Your task to perform on an android device: turn smart compose on in the gmail app Image 0: 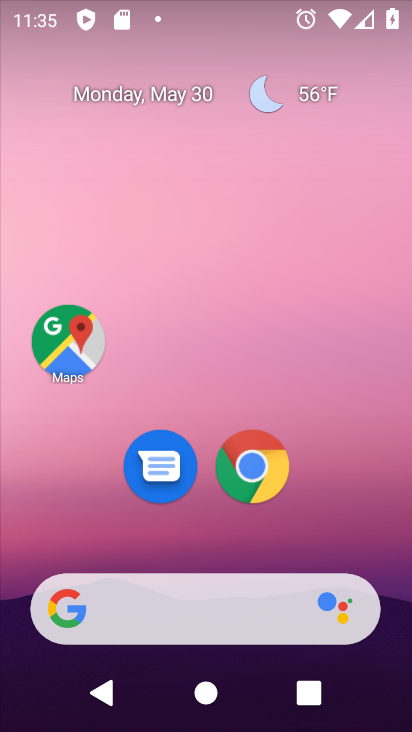
Step 0: drag from (157, 606) to (115, 144)
Your task to perform on an android device: turn smart compose on in the gmail app Image 1: 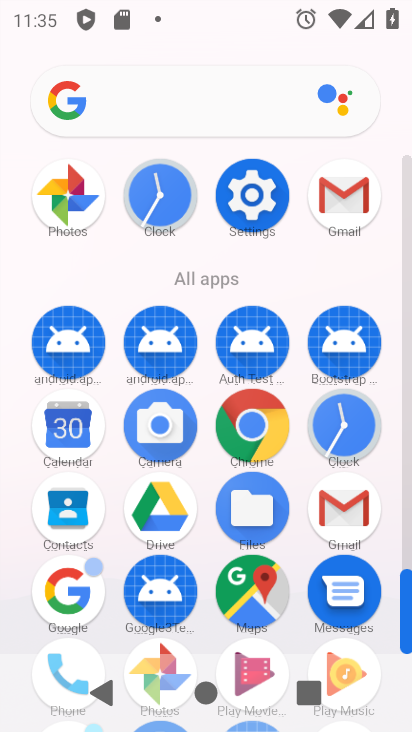
Step 1: click (358, 505)
Your task to perform on an android device: turn smart compose on in the gmail app Image 2: 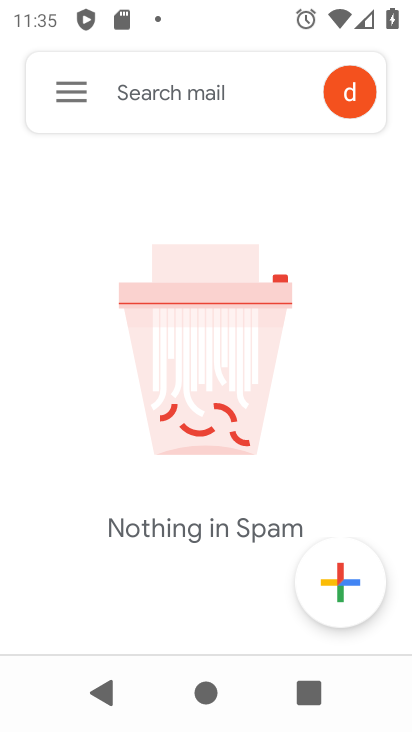
Step 2: click (71, 93)
Your task to perform on an android device: turn smart compose on in the gmail app Image 3: 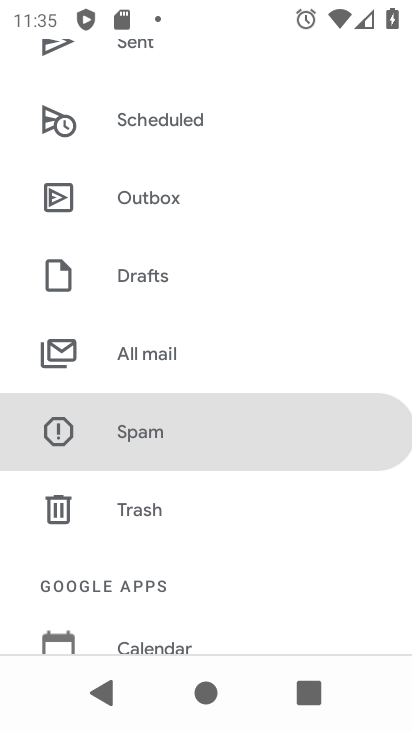
Step 3: drag from (212, 565) to (104, 26)
Your task to perform on an android device: turn smart compose on in the gmail app Image 4: 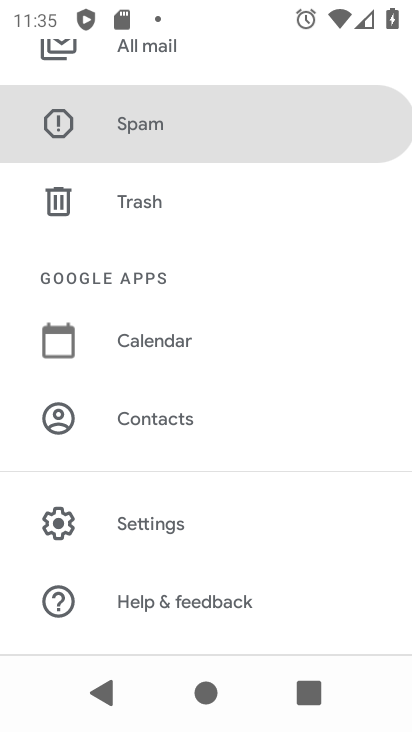
Step 4: click (142, 523)
Your task to perform on an android device: turn smart compose on in the gmail app Image 5: 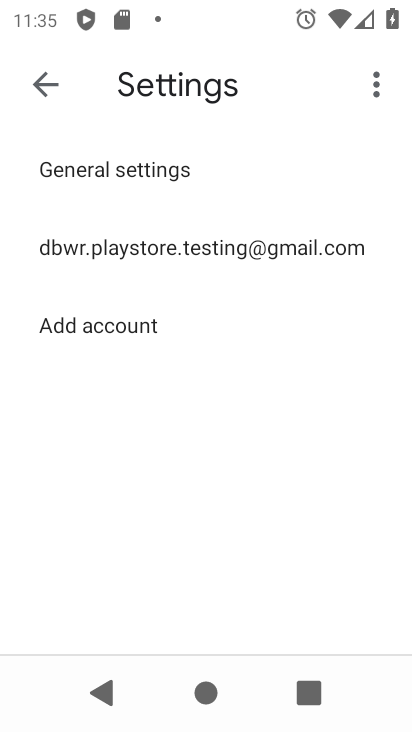
Step 5: click (190, 248)
Your task to perform on an android device: turn smart compose on in the gmail app Image 6: 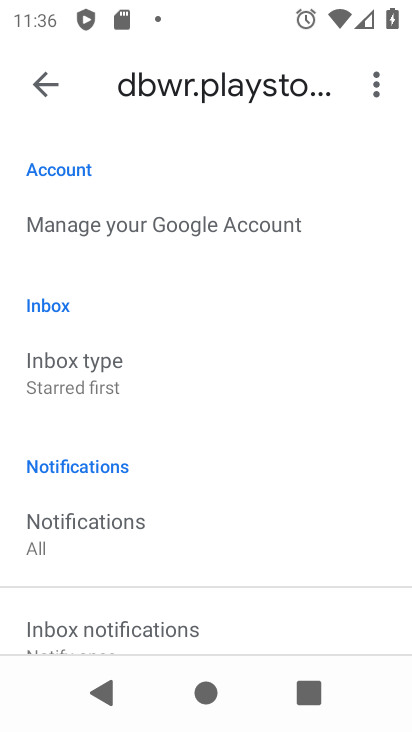
Step 6: task complete